Your task to perform on an android device: Go to Amazon Image 0: 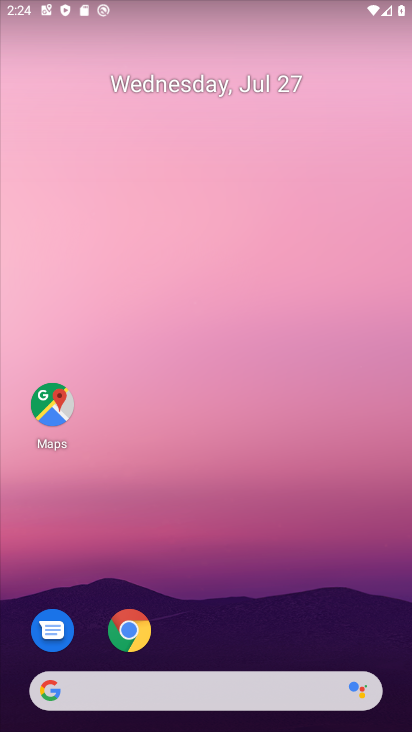
Step 0: drag from (402, 713) to (340, 5)
Your task to perform on an android device: Go to Amazon Image 1: 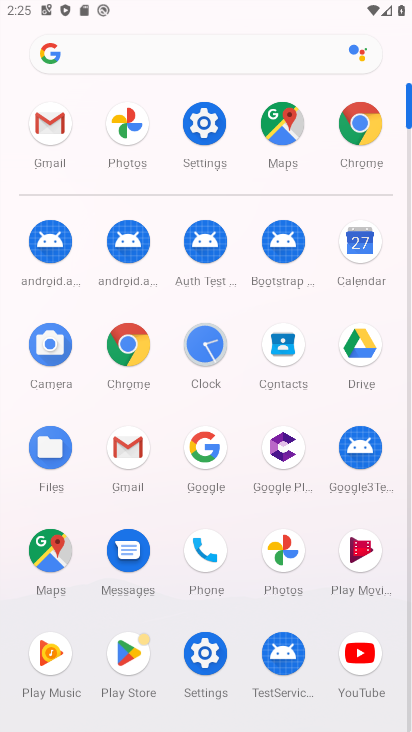
Step 1: click (126, 343)
Your task to perform on an android device: Go to Amazon Image 2: 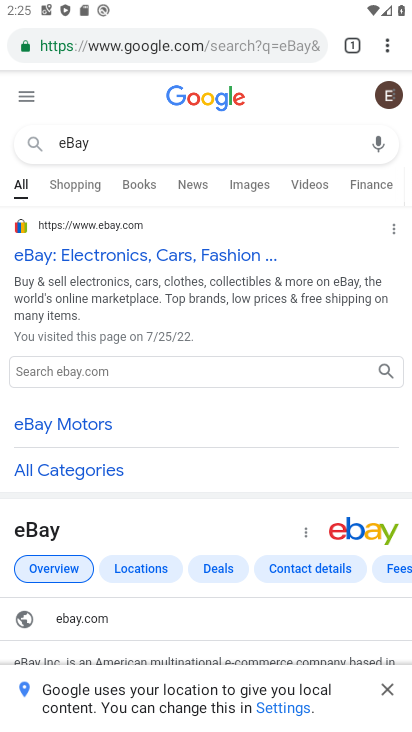
Step 2: click (242, 46)
Your task to perform on an android device: Go to Amazon Image 3: 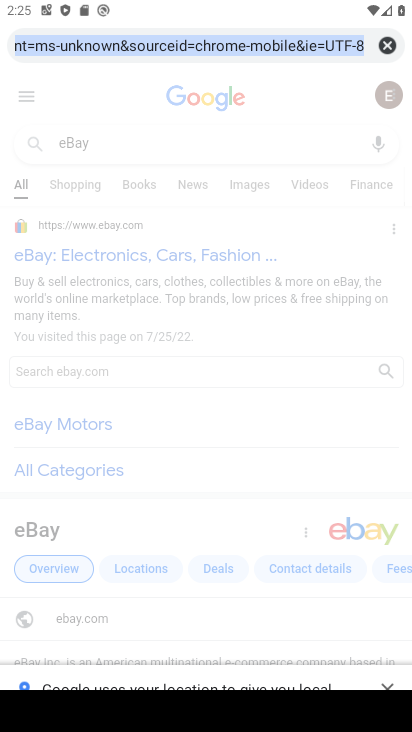
Step 3: click (395, 36)
Your task to perform on an android device: Go to Amazon Image 4: 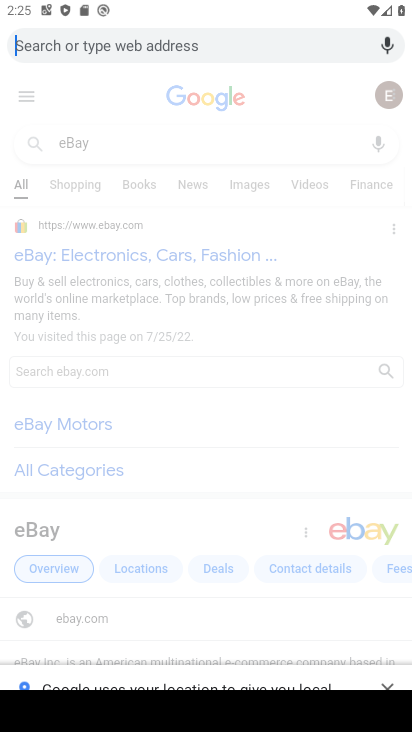
Step 4: type " Amazon"
Your task to perform on an android device: Go to Amazon Image 5: 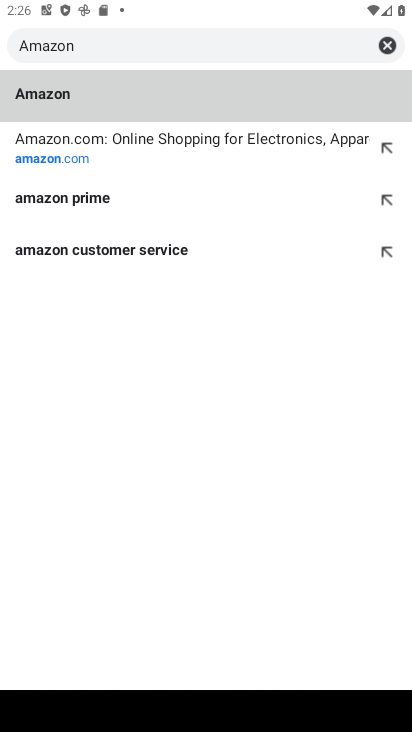
Step 5: click (67, 77)
Your task to perform on an android device: Go to Amazon Image 6: 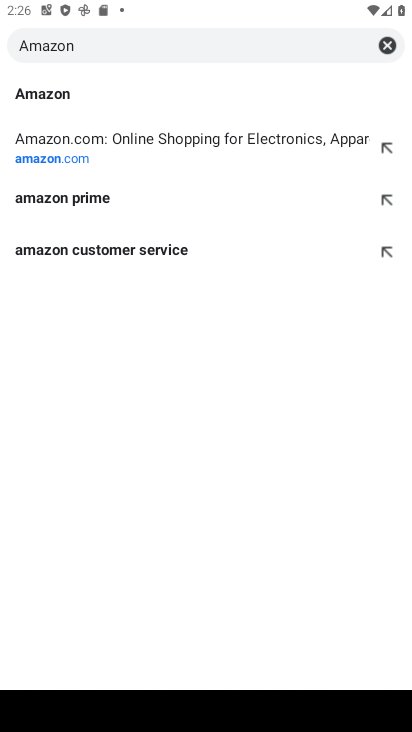
Step 6: click (75, 89)
Your task to perform on an android device: Go to Amazon Image 7: 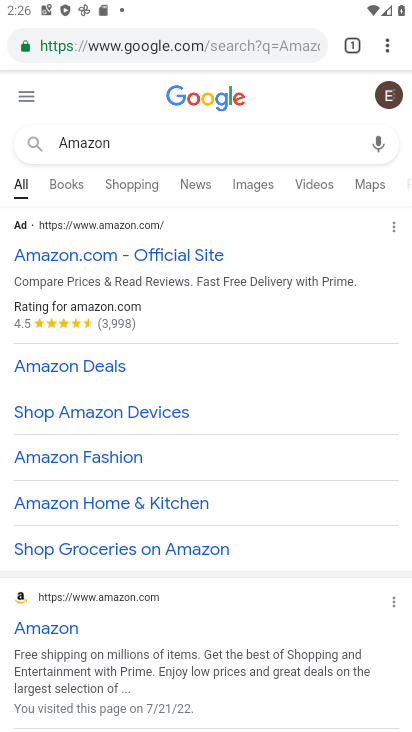
Step 7: task complete